Your task to perform on an android device: check google app version Image 0: 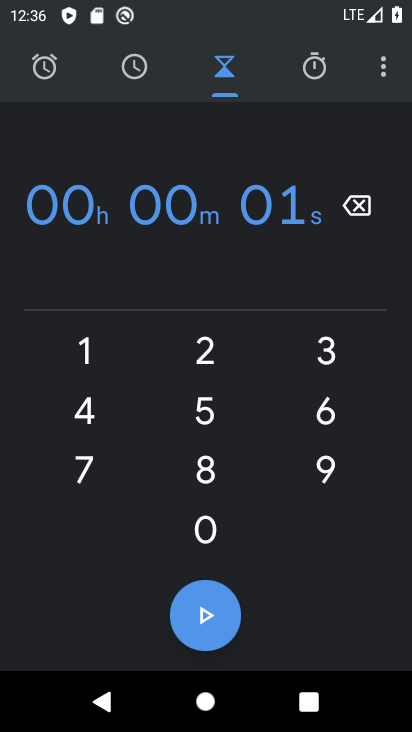
Step 0: press home button
Your task to perform on an android device: check google app version Image 1: 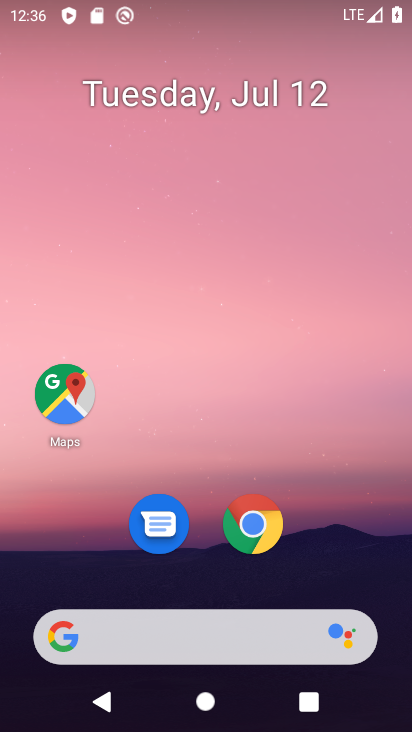
Step 1: click (237, 638)
Your task to perform on an android device: check google app version Image 2: 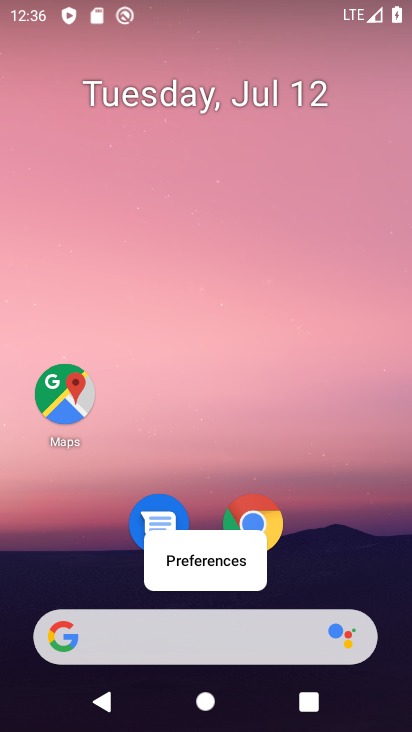
Step 2: click (206, 638)
Your task to perform on an android device: check google app version Image 3: 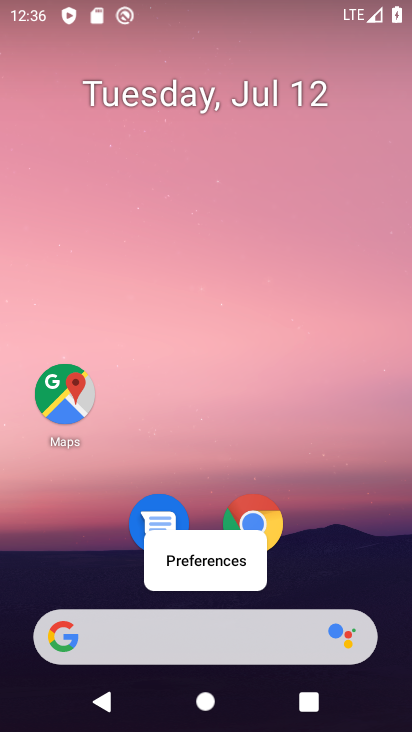
Step 3: click (172, 641)
Your task to perform on an android device: check google app version Image 4: 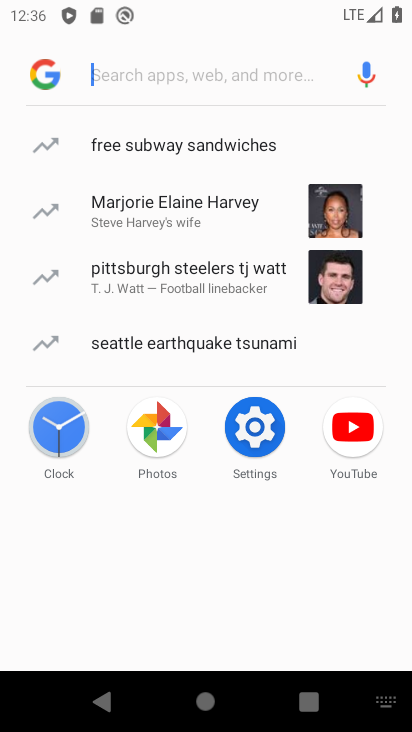
Step 4: click (40, 71)
Your task to perform on an android device: check google app version Image 5: 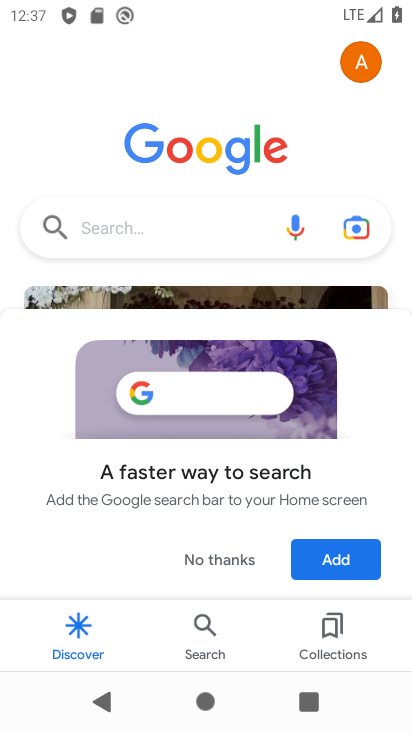
Step 5: click (196, 148)
Your task to perform on an android device: check google app version Image 6: 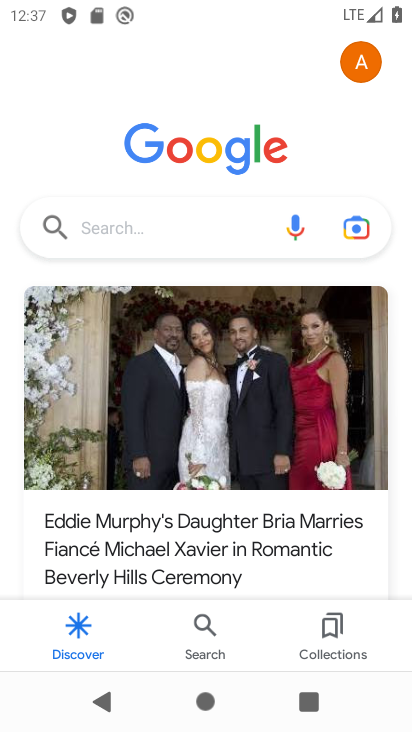
Step 6: click (360, 67)
Your task to perform on an android device: check google app version Image 7: 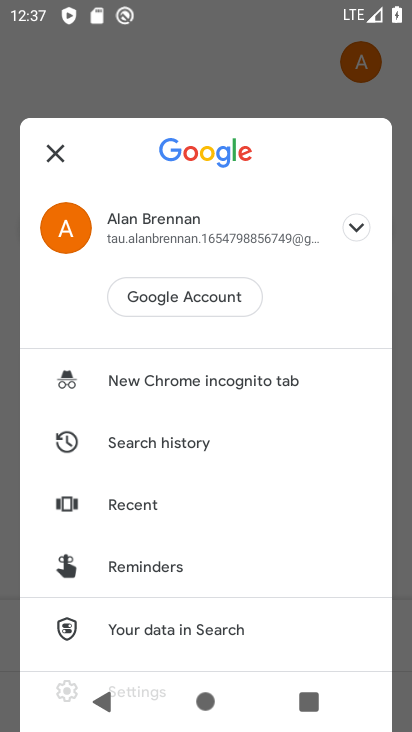
Step 7: drag from (243, 584) to (265, 228)
Your task to perform on an android device: check google app version Image 8: 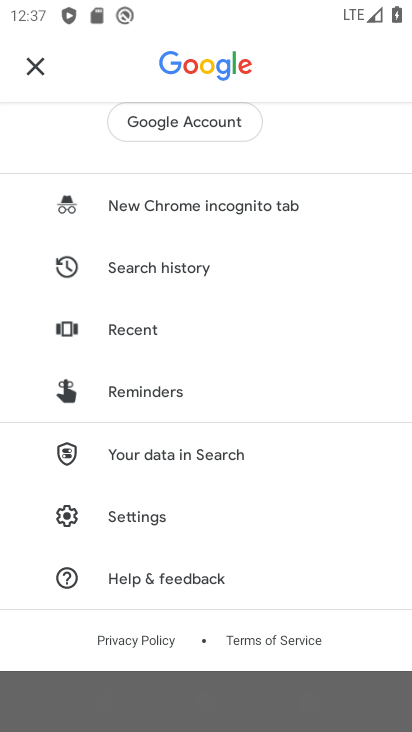
Step 8: click (154, 517)
Your task to perform on an android device: check google app version Image 9: 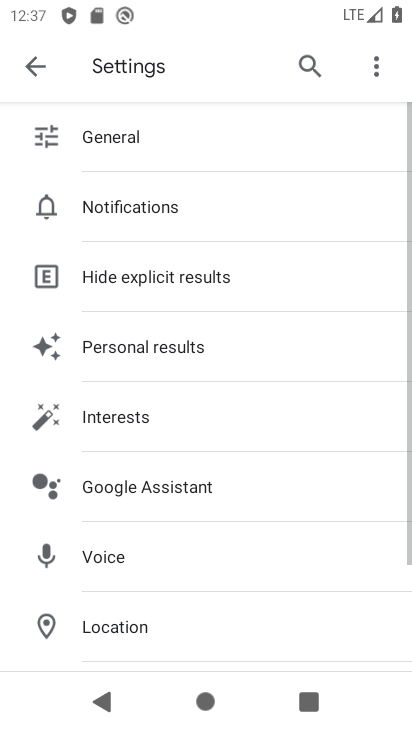
Step 9: drag from (223, 607) to (282, 170)
Your task to perform on an android device: check google app version Image 10: 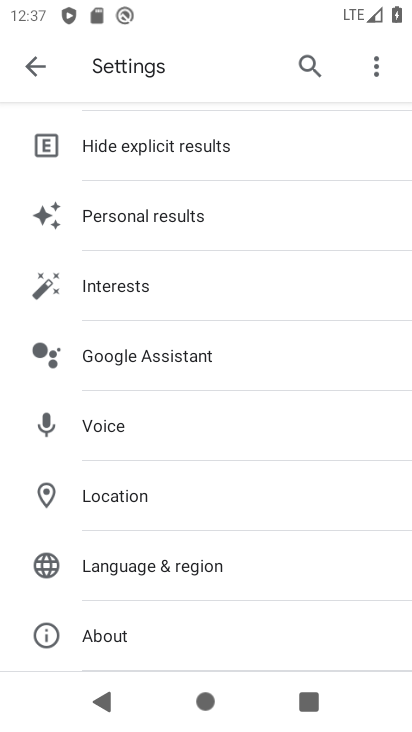
Step 10: click (108, 632)
Your task to perform on an android device: check google app version Image 11: 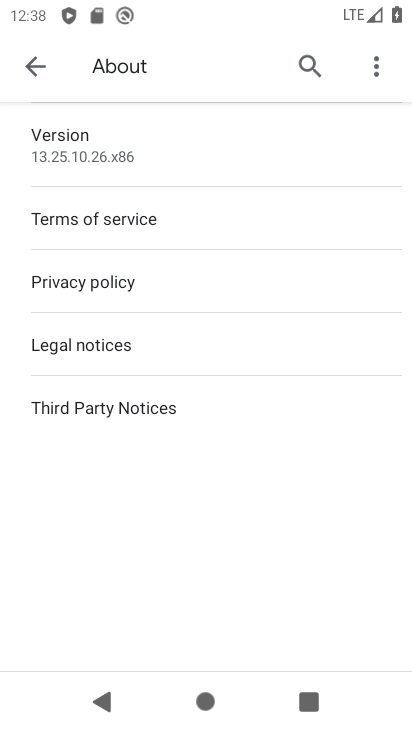
Step 11: task complete